Your task to perform on an android device: Show the shopping cart on amazon.com. Add "usb-b" to the cart on amazon.com, then select checkout. Image 0: 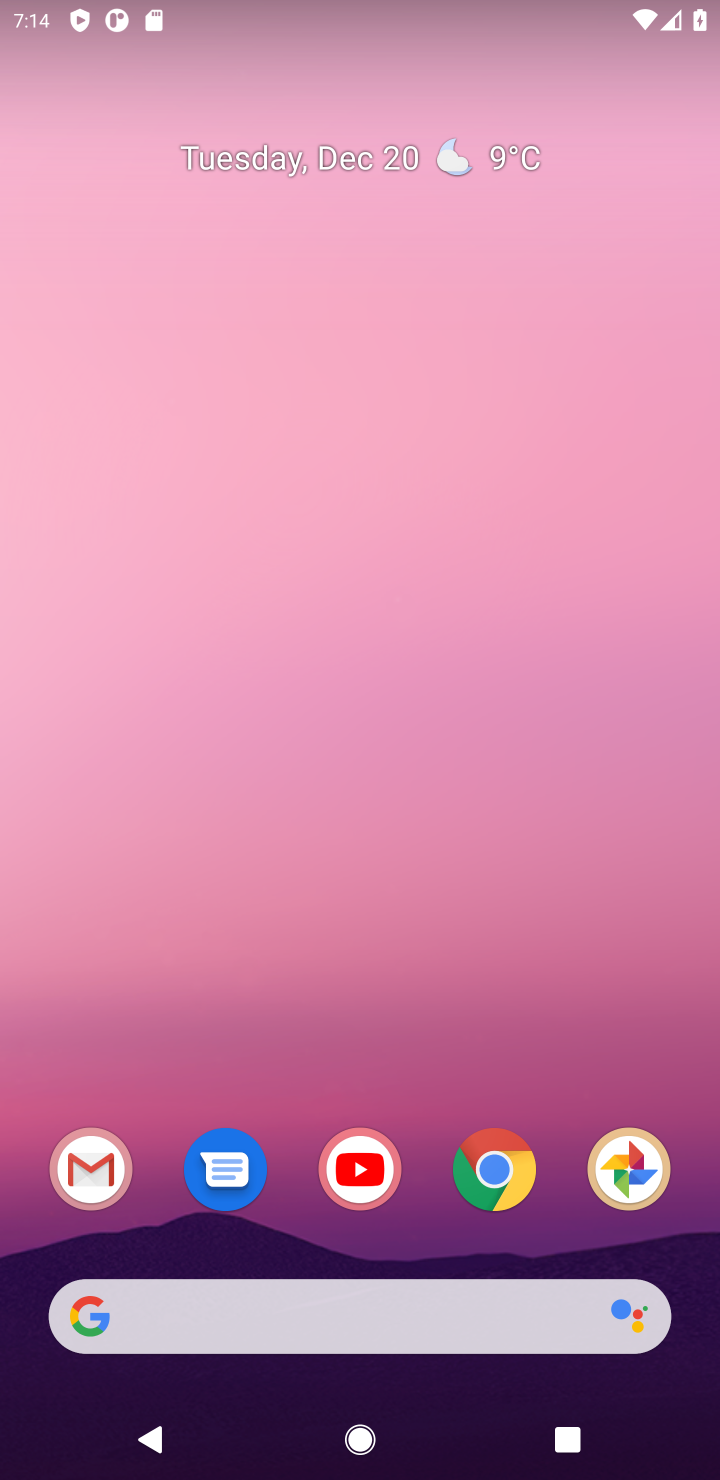
Step 0: click (459, 1173)
Your task to perform on an android device: Show the shopping cart on amazon.com. Add "usb-b" to the cart on amazon.com, then select checkout. Image 1: 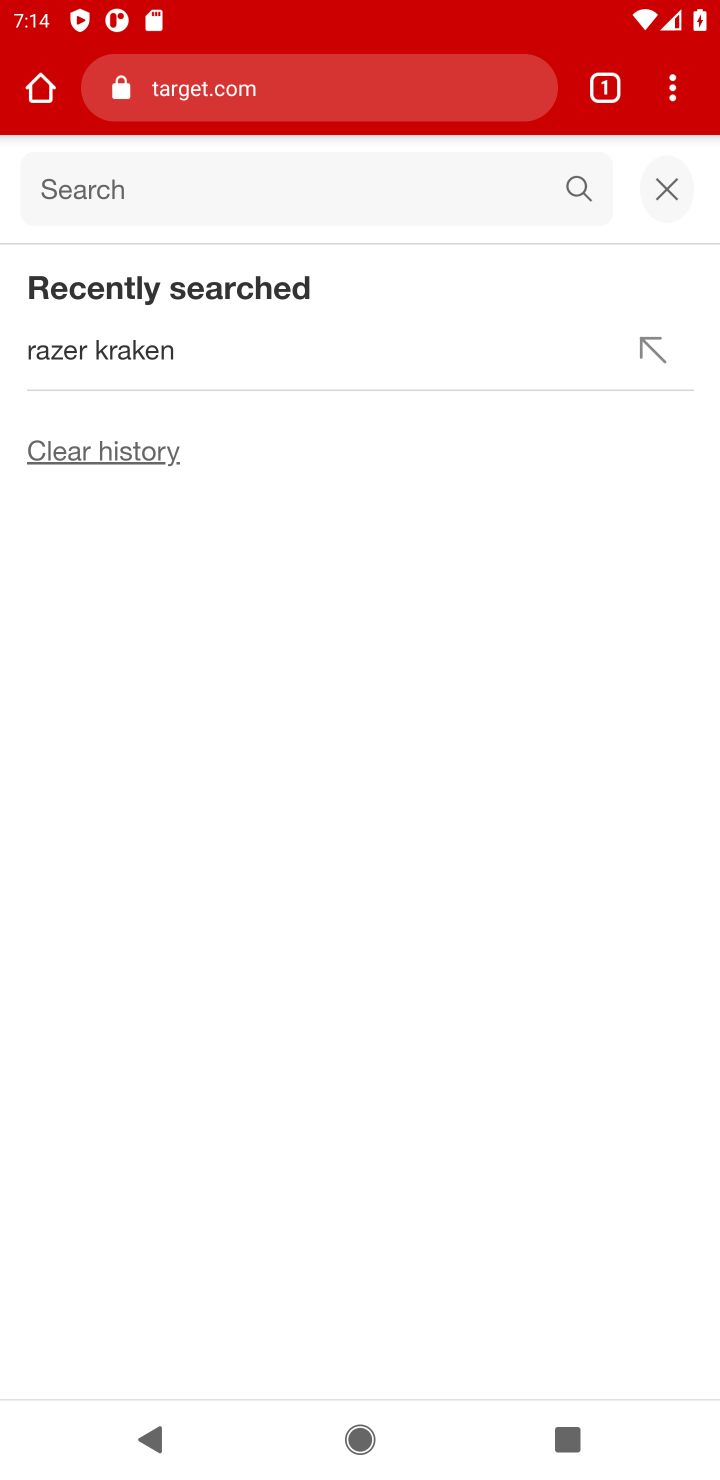
Step 1: type "usb-b"
Your task to perform on an android device: Show the shopping cart on amazon.com. Add "usb-b" to the cart on amazon.com, then select checkout. Image 2: 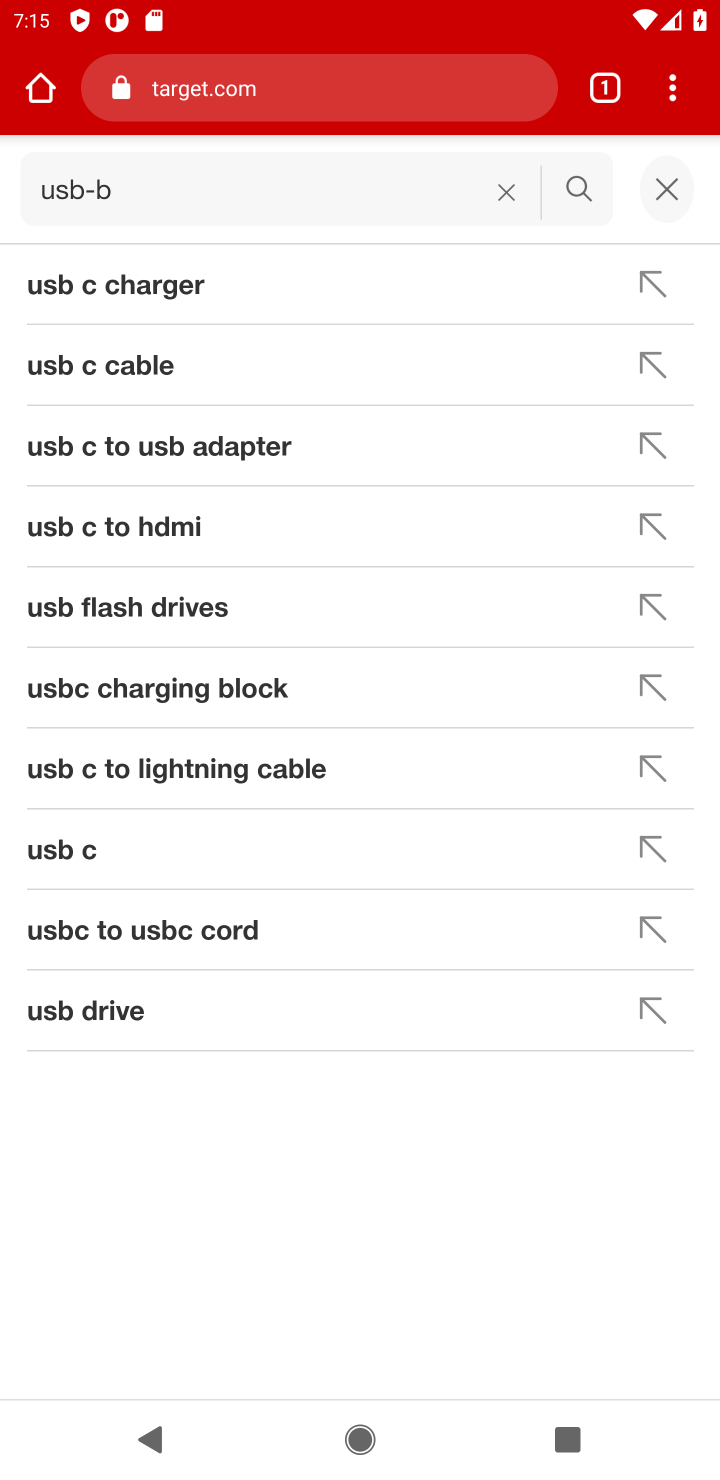
Step 2: click (571, 187)
Your task to perform on an android device: Show the shopping cart on amazon.com. Add "usb-b" to the cart on amazon.com, then select checkout. Image 3: 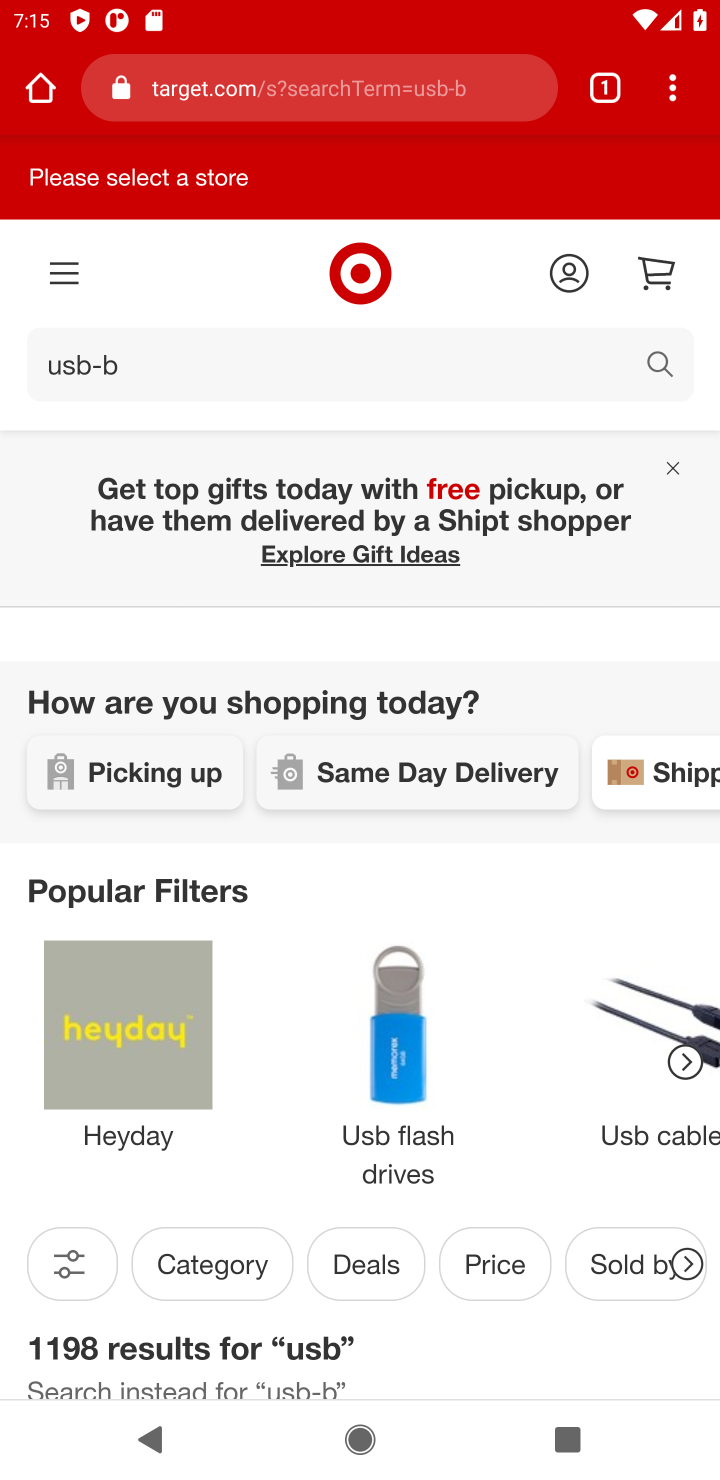
Step 3: task complete